Your task to perform on an android device: Go to Android settings Image 0: 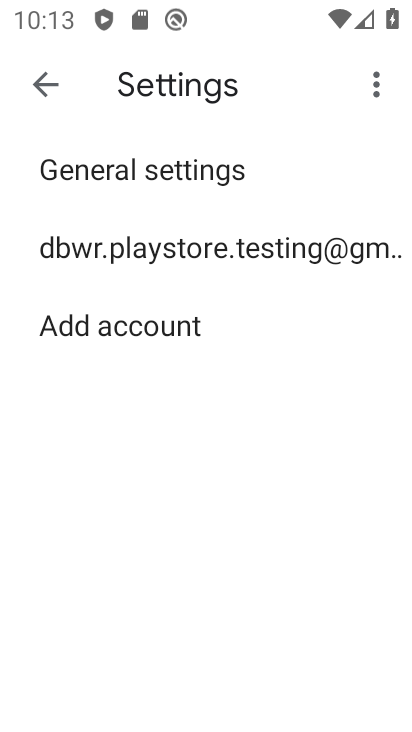
Step 0: press home button
Your task to perform on an android device: Go to Android settings Image 1: 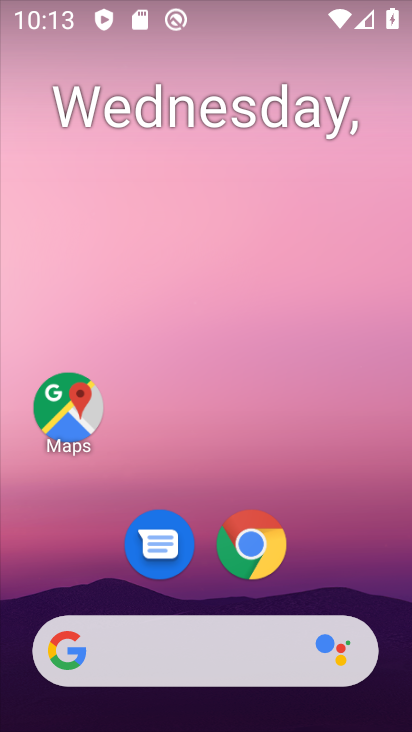
Step 1: drag from (263, 632) to (155, 51)
Your task to perform on an android device: Go to Android settings Image 2: 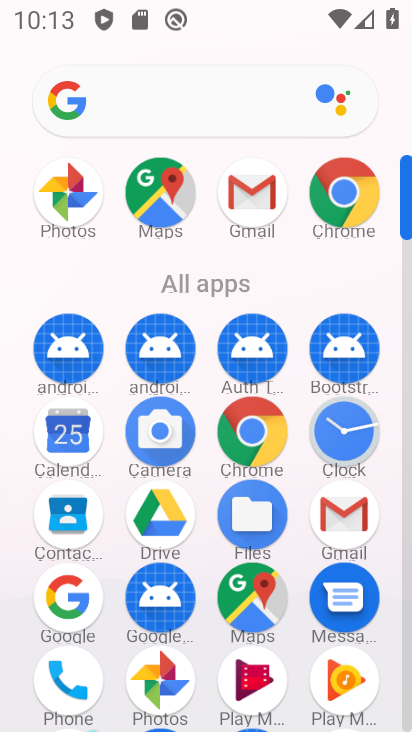
Step 2: drag from (195, 479) to (207, 256)
Your task to perform on an android device: Go to Android settings Image 3: 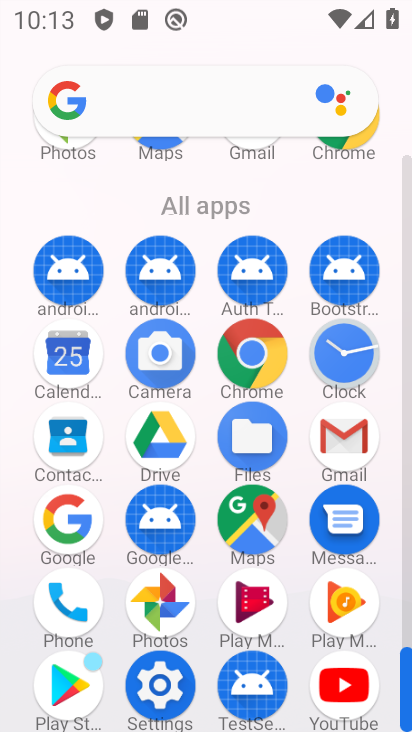
Step 3: click (161, 666)
Your task to perform on an android device: Go to Android settings Image 4: 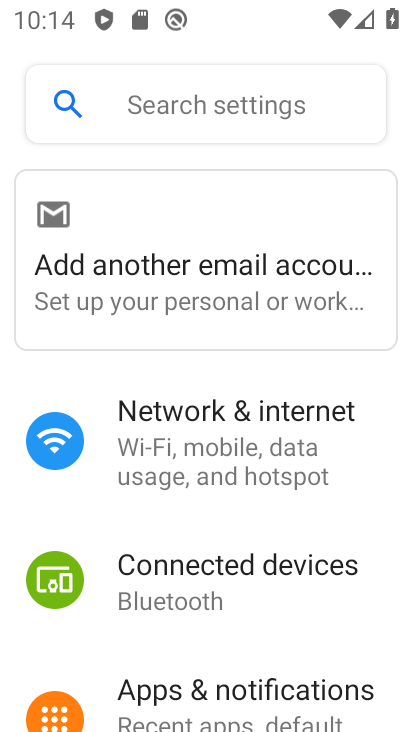
Step 4: click (208, 115)
Your task to perform on an android device: Go to Android settings Image 5: 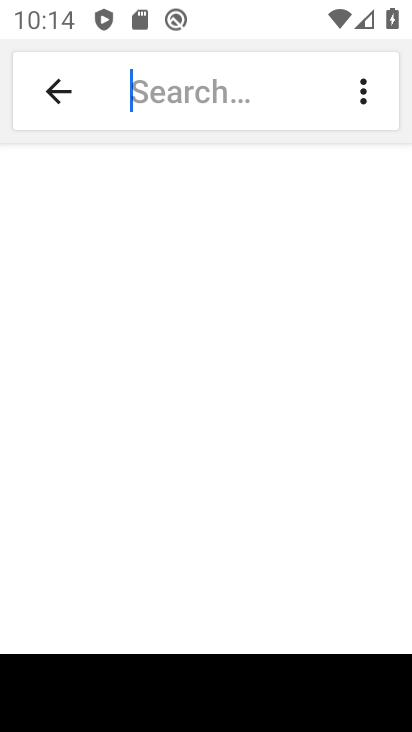
Step 5: drag from (385, 713) to (411, 595)
Your task to perform on an android device: Go to Android settings Image 6: 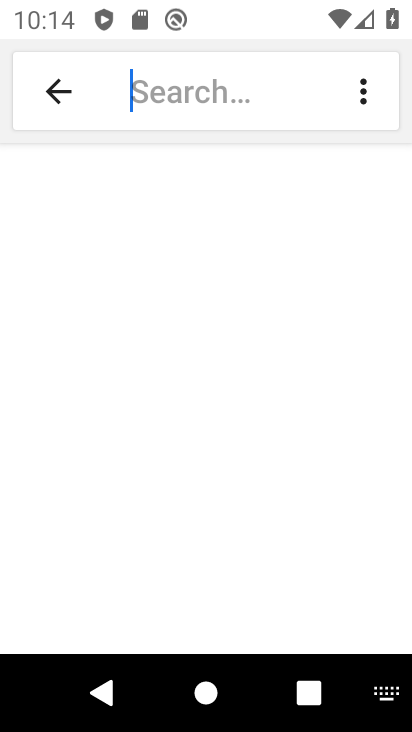
Step 6: click (385, 696)
Your task to perform on an android device: Go to Android settings Image 7: 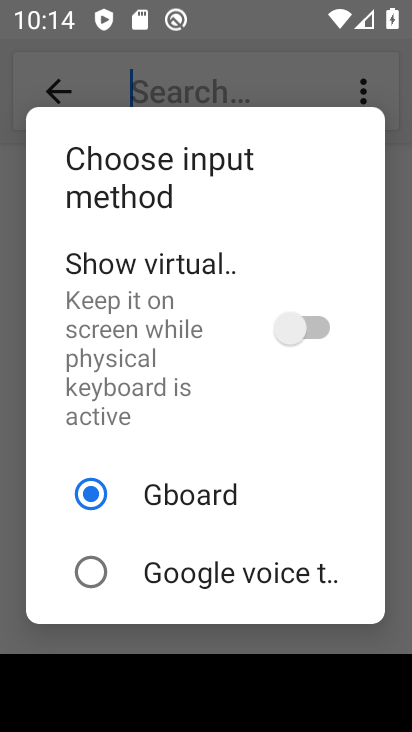
Step 7: click (295, 319)
Your task to perform on an android device: Go to Android settings Image 8: 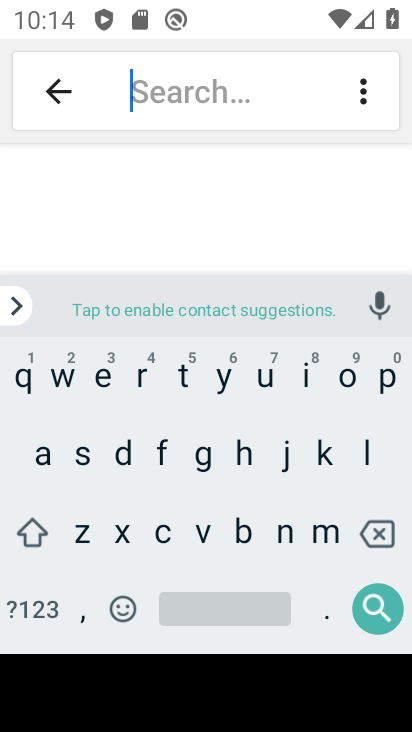
Step 8: click (31, 459)
Your task to perform on an android device: Go to Android settings Image 9: 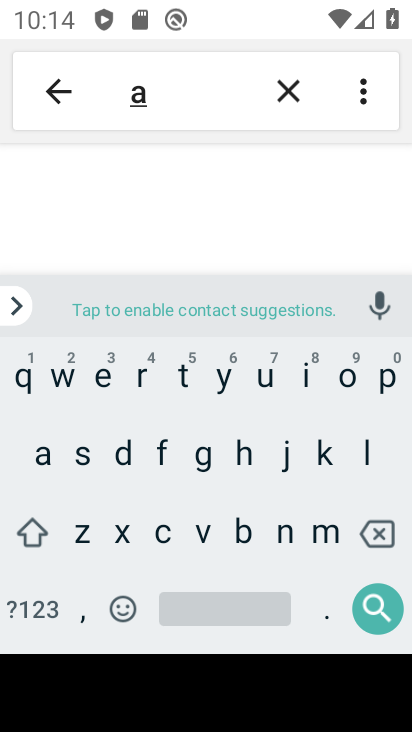
Step 9: click (280, 534)
Your task to perform on an android device: Go to Android settings Image 10: 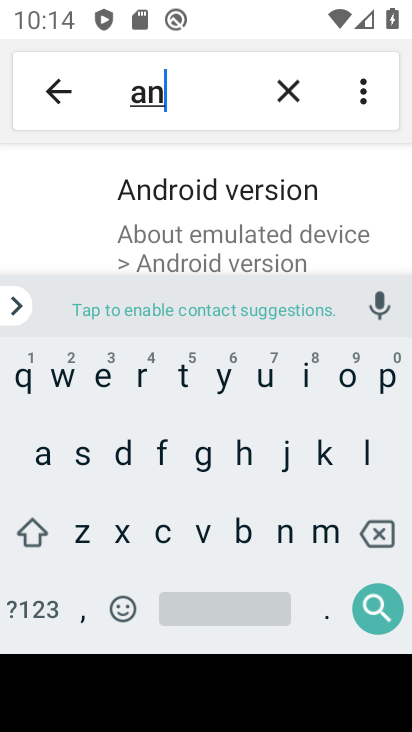
Step 10: click (183, 216)
Your task to perform on an android device: Go to Android settings Image 11: 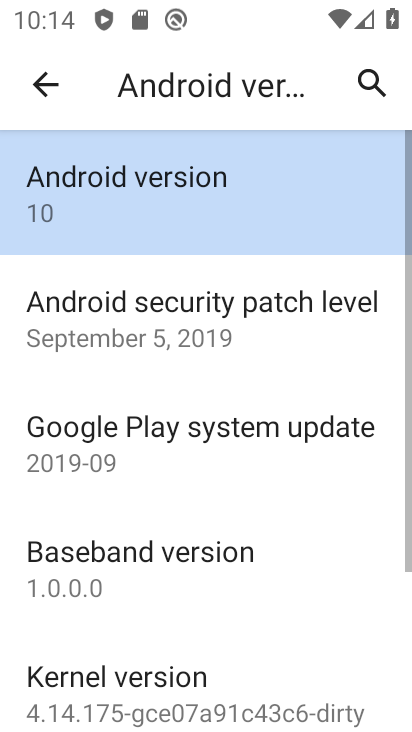
Step 11: click (209, 197)
Your task to perform on an android device: Go to Android settings Image 12: 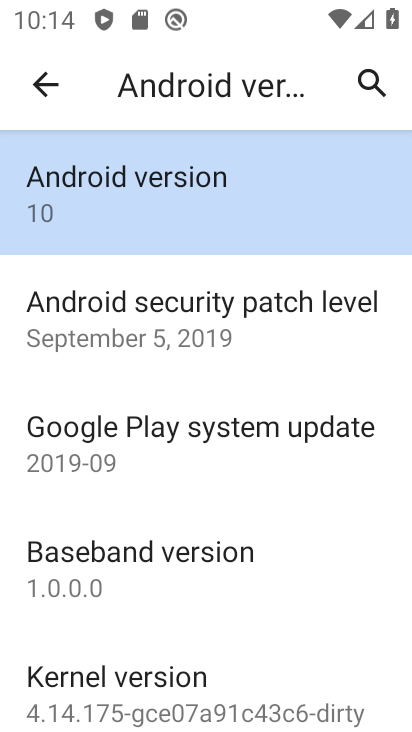
Step 12: task complete